Your task to perform on an android device: Open my contact list Image 0: 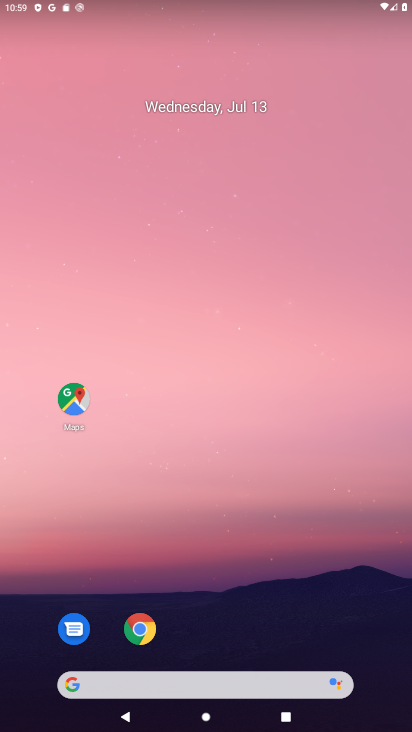
Step 0: drag from (289, 618) to (278, 70)
Your task to perform on an android device: Open my contact list Image 1: 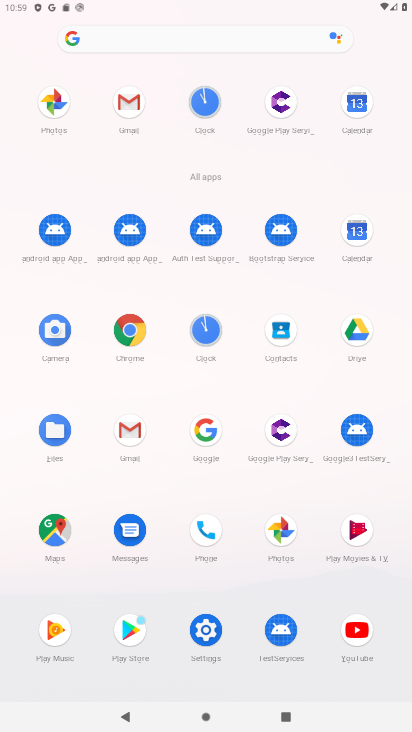
Step 1: click (277, 341)
Your task to perform on an android device: Open my contact list Image 2: 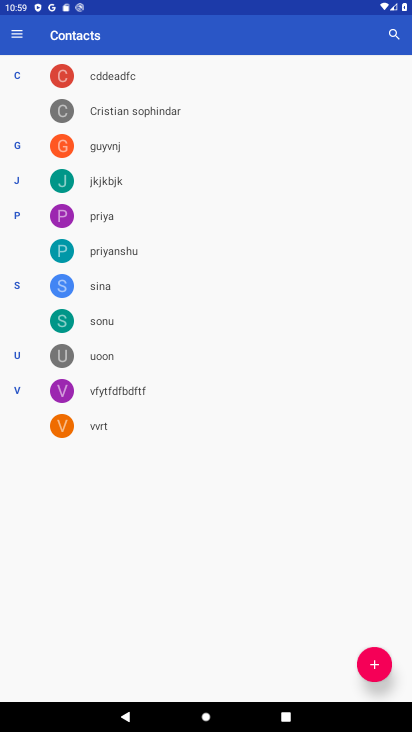
Step 2: task complete